Your task to perform on an android device: snooze an email in the gmail app Image 0: 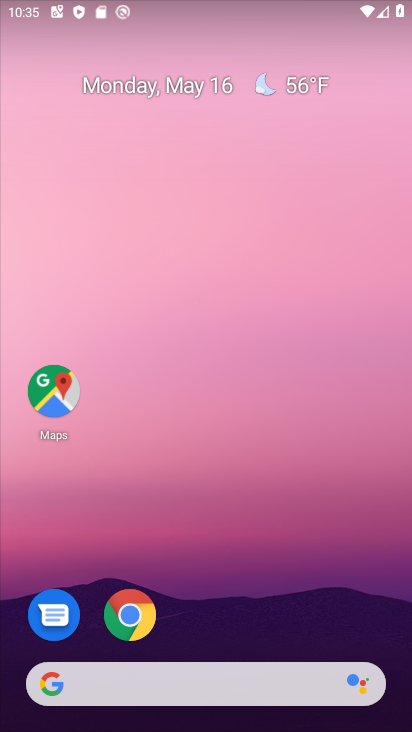
Step 0: drag from (235, 696) to (254, 205)
Your task to perform on an android device: snooze an email in the gmail app Image 1: 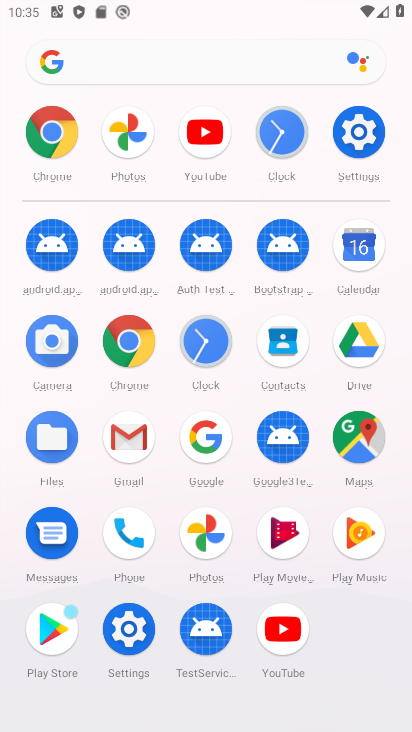
Step 1: click (136, 428)
Your task to perform on an android device: snooze an email in the gmail app Image 2: 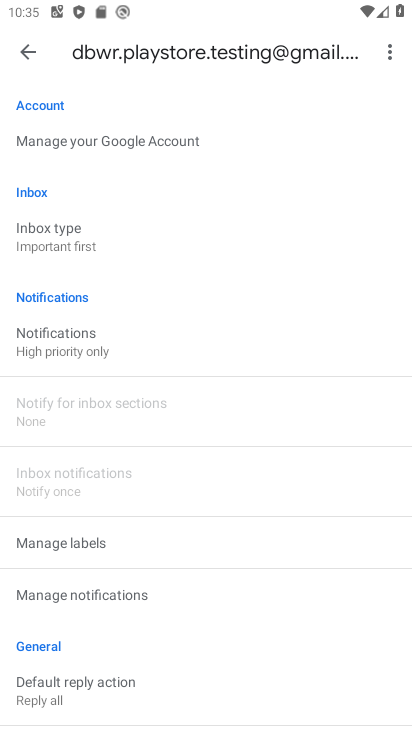
Step 2: click (23, 55)
Your task to perform on an android device: snooze an email in the gmail app Image 3: 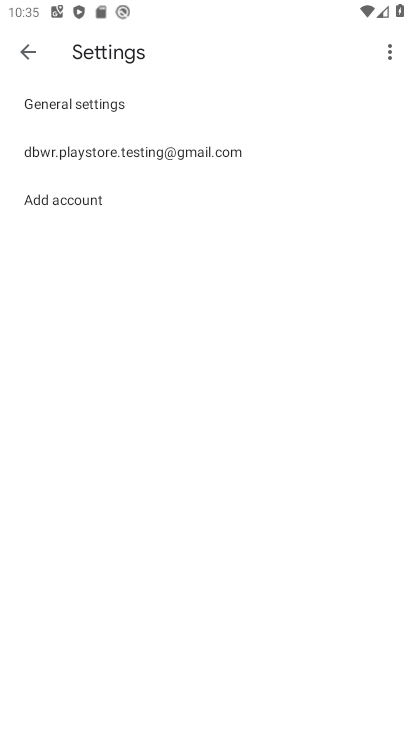
Step 3: click (23, 55)
Your task to perform on an android device: snooze an email in the gmail app Image 4: 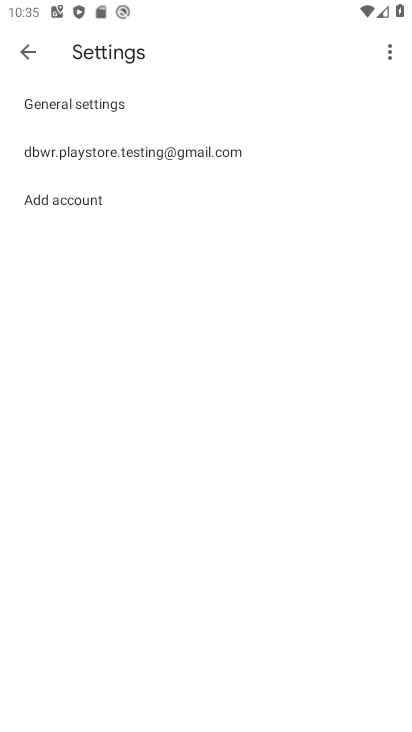
Step 4: click (32, 62)
Your task to perform on an android device: snooze an email in the gmail app Image 5: 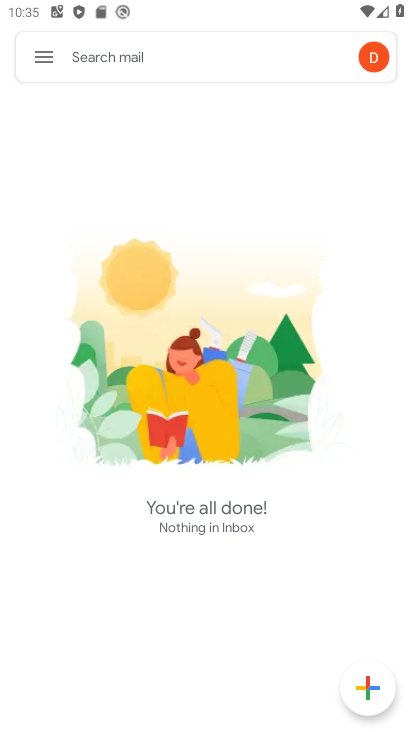
Step 5: click (45, 73)
Your task to perform on an android device: snooze an email in the gmail app Image 6: 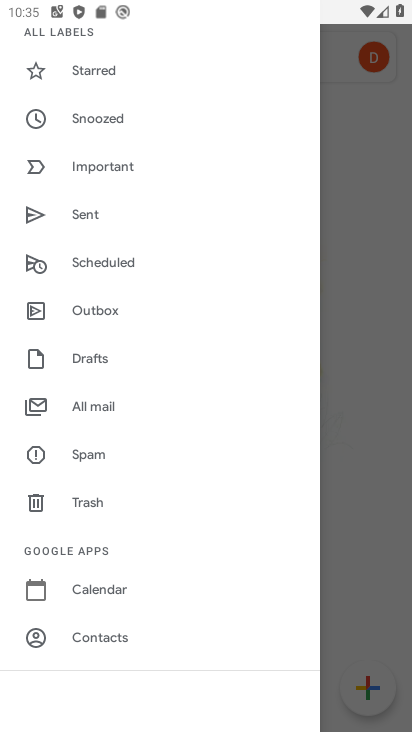
Step 6: click (119, 111)
Your task to perform on an android device: snooze an email in the gmail app Image 7: 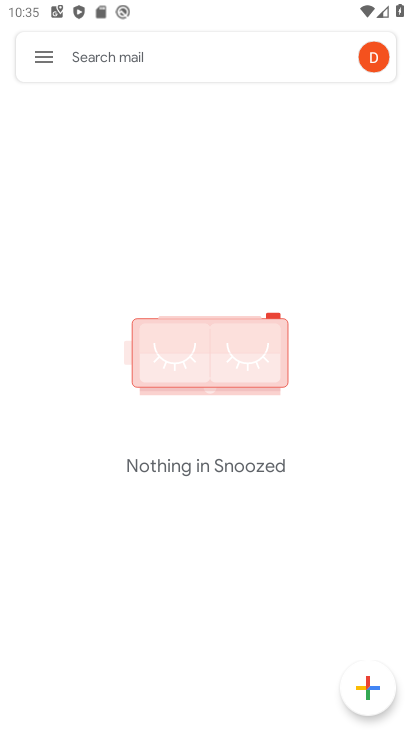
Step 7: task complete